Your task to perform on an android device: find photos in the google photos app Image 0: 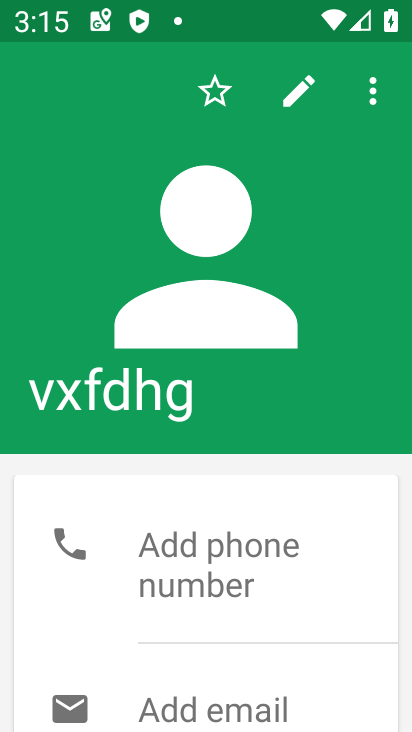
Step 0: press home button
Your task to perform on an android device: find photos in the google photos app Image 1: 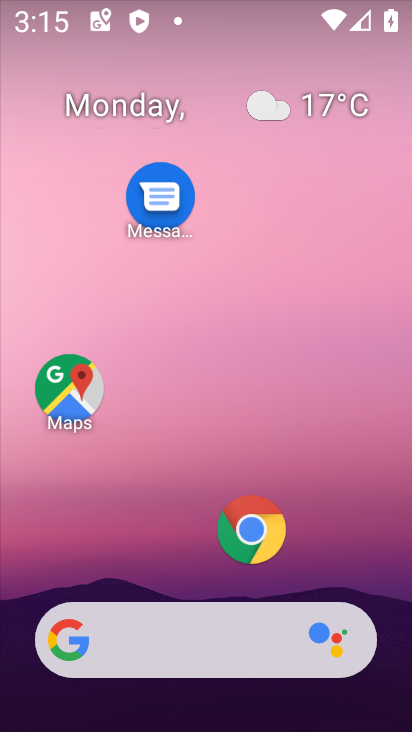
Step 1: drag from (201, 586) to (206, 0)
Your task to perform on an android device: find photos in the google photos app Image 2: 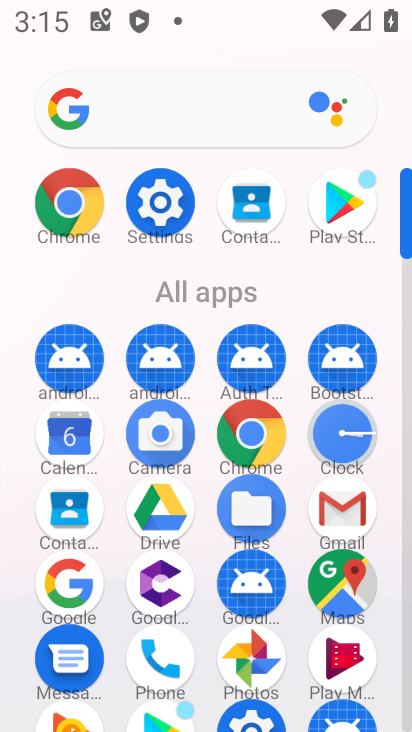
Step 2: click (248, 653)
Your task to perform on an android device: find photos in the google photos app Image 3: 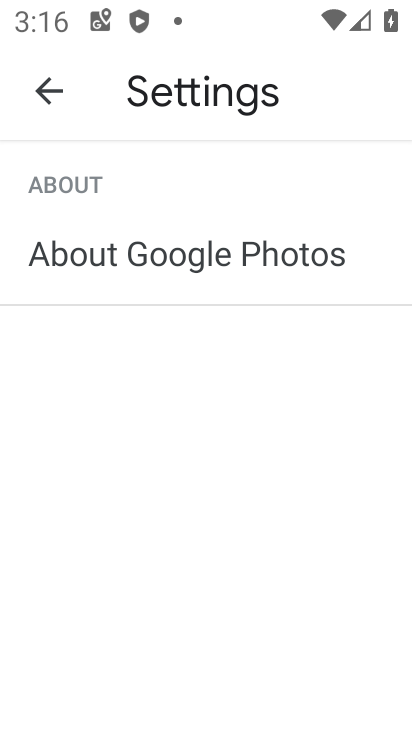
Step 3: click (51, 98)
Your task to perform on an android device: find photos in the google photos app Image 4: 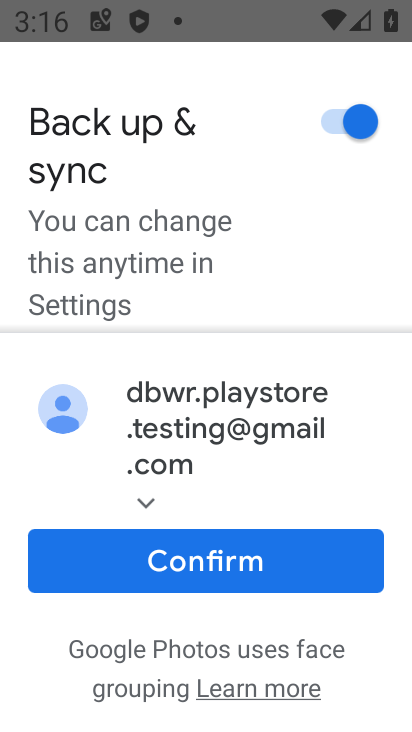
Step 4: click (204, 549)
Your task to perform on an android device: find photos in the google photos app Image 5: 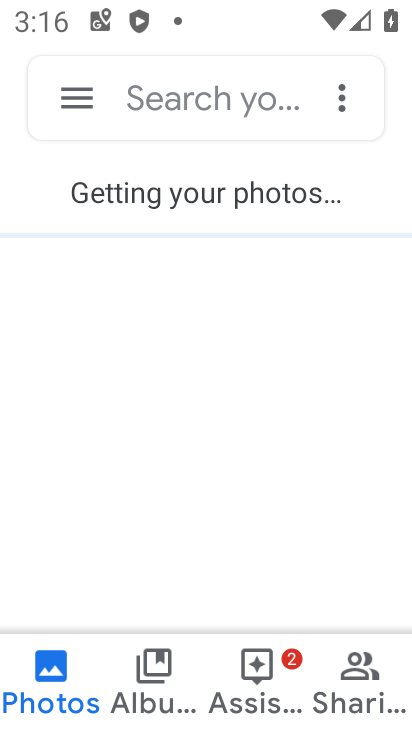
Step 5: task complete